Your task to perform on an android device: Search for Italian restaurants on Maps Image 0: 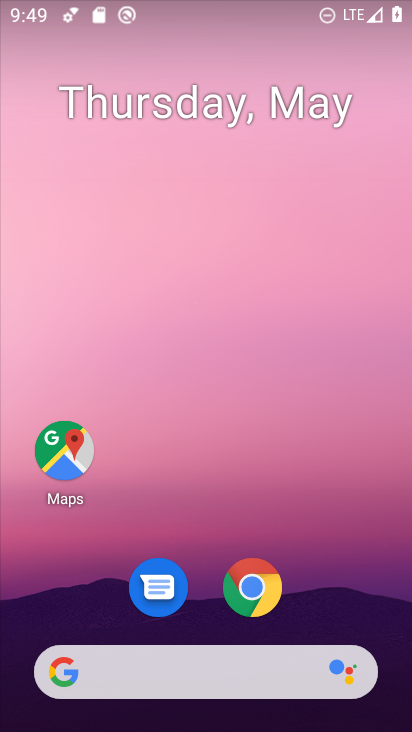
Step 0: click (54, 456)
Your task to perform on an android device: Search for Italian restaurants on Maps Image 1: 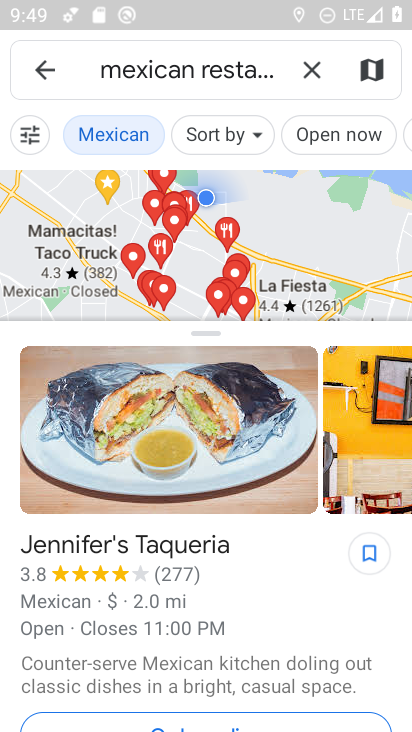
Step 1: click (302, 75)
Your task to perform on an android device: Search for Italian restaurants on Maps Image 2: 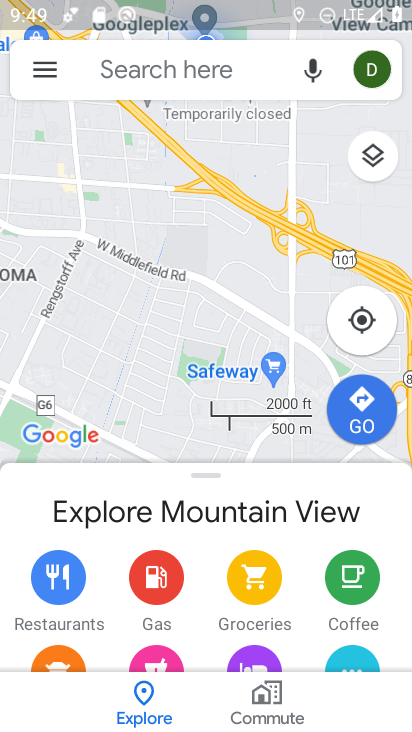
Step 2: click (110, 66)
Your task to perform on an android device: Search for Italian restaurants on Maps Image 3: 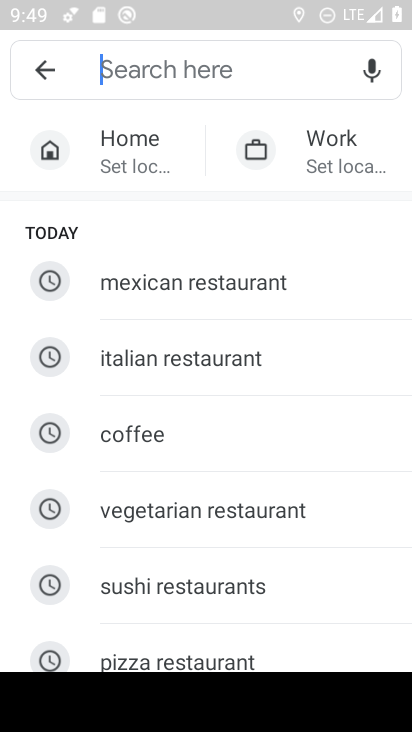
Step 3: type "italian restaurant "
Your task to perform on an android device: Search for Italian restaurants on Maps Image 4: 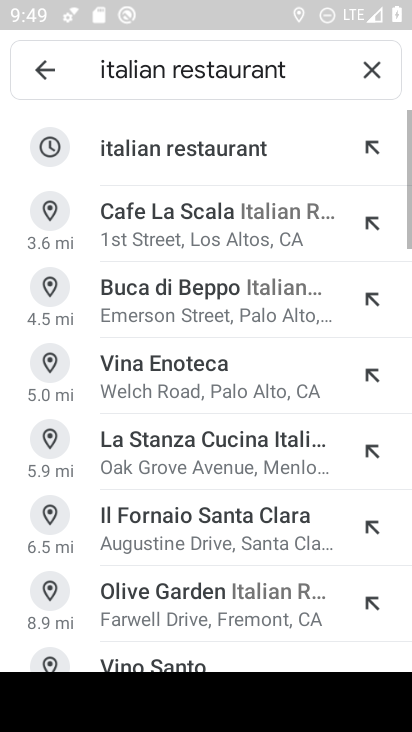
Step 4: click (165, 160)
Your task to perform on an android device: Search for Italian restaurants on Maps Image 5: 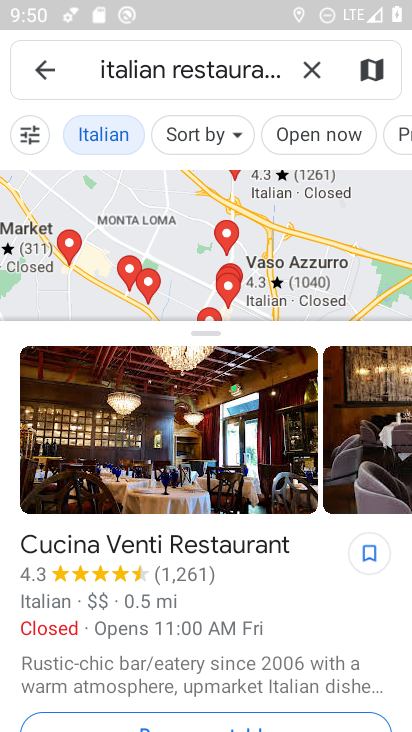
Step 5: task complete